Your task to perform on an android device: all mails in gmail Image 0: 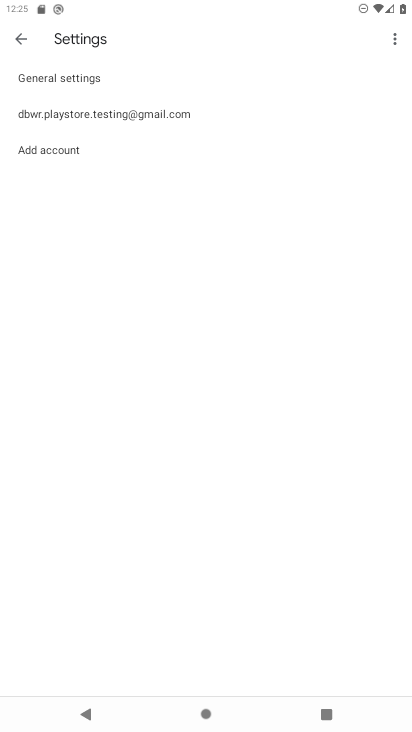
Step 0: press home button
Your task to perform on an android device: all mails in gmail Image 1: 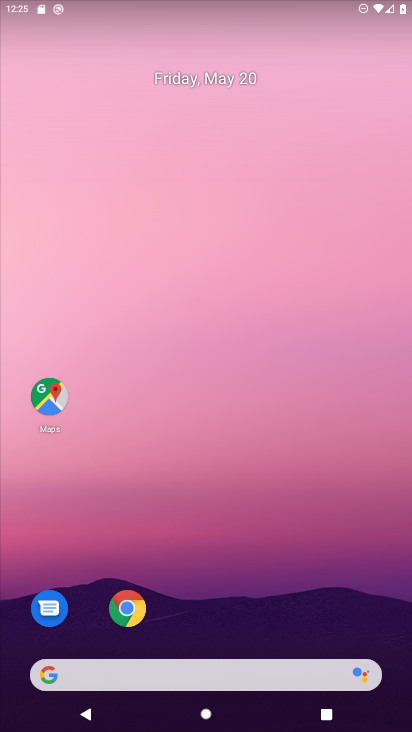
Step 1: drag from (340, 456) to (307, 37)
Your task to perform on an android device: all mails in gmail Image 2: 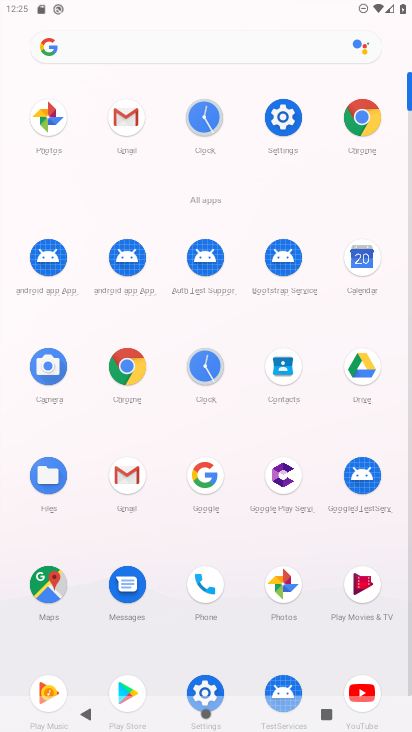
Step 2: click (119, 124)
Your task to perform on an android device: all mails in gmail Image 3: 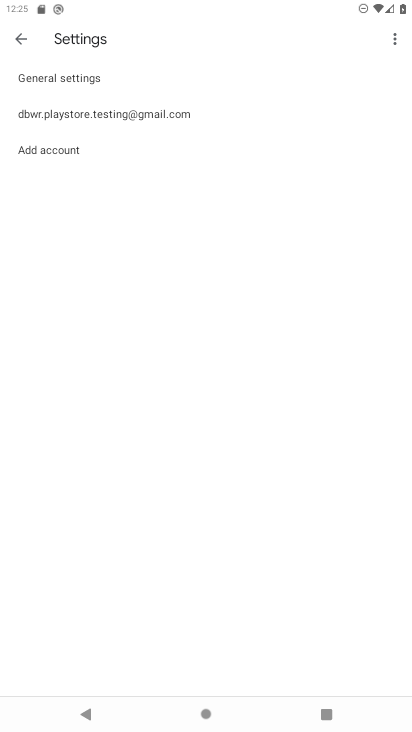
Step 3: click (17, 43)
Your task to perform on an android device: all mails in gmail Image 4: 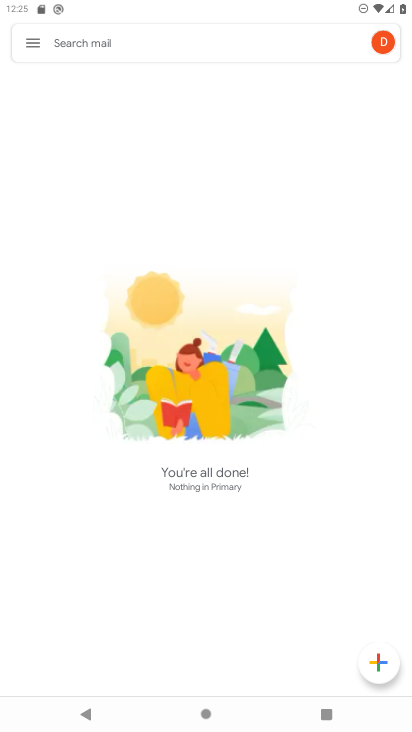
Step 4: click (17, 43)
Your task to perform on an android device: all mails in gmail Image 5: 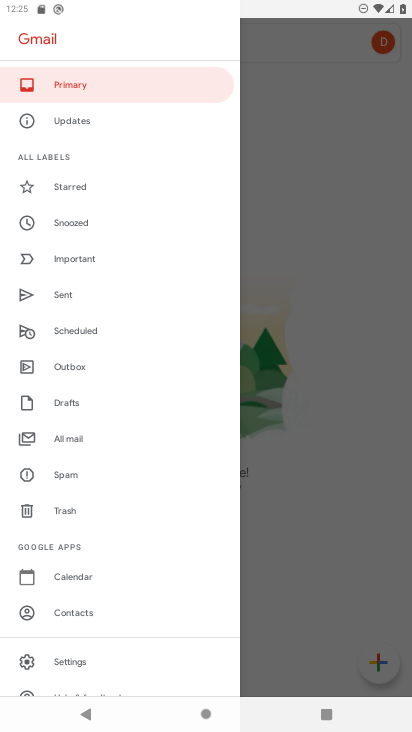
Step 5: click (67, 440)
Your task to perform on an android device: all mails in gmail Image 6: 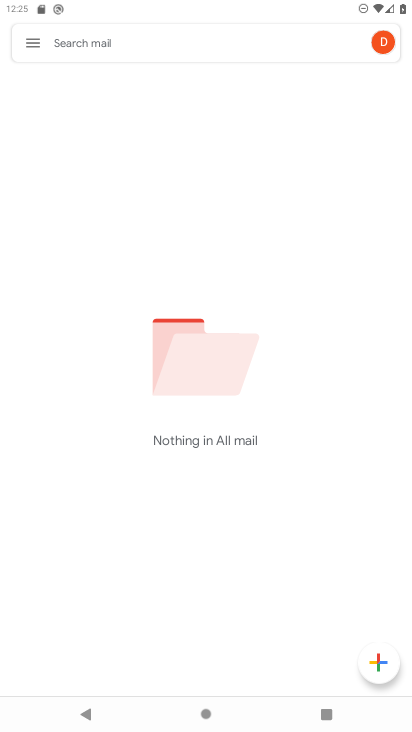
Step 6: task complete